Your task to perform on an android device: What's the news in Trinidad and Tobago? Image 0: 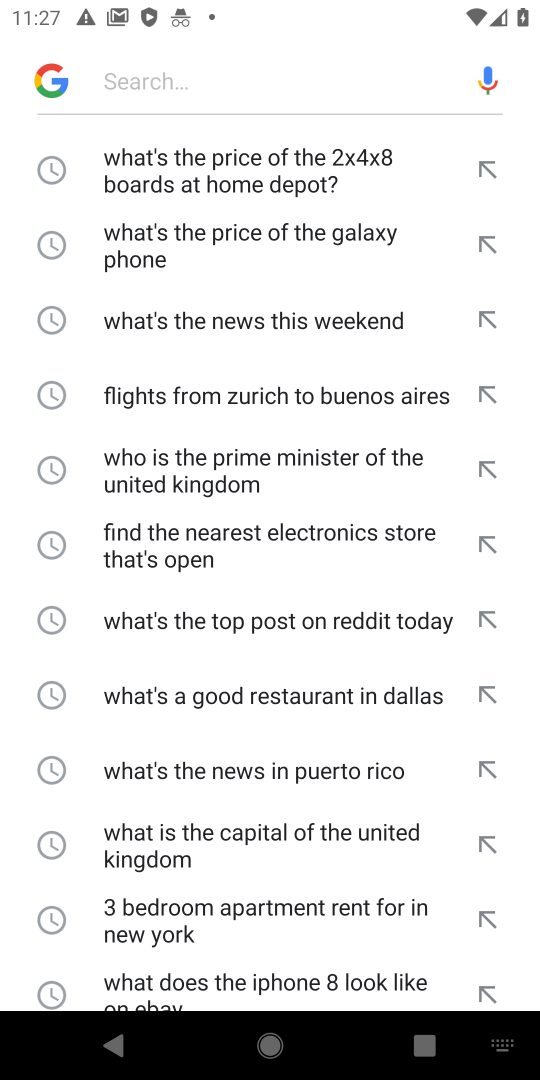
Step 0: press home button
Your task to perform on an android device: What's the news in Trinidad and Tobago? Image 1: 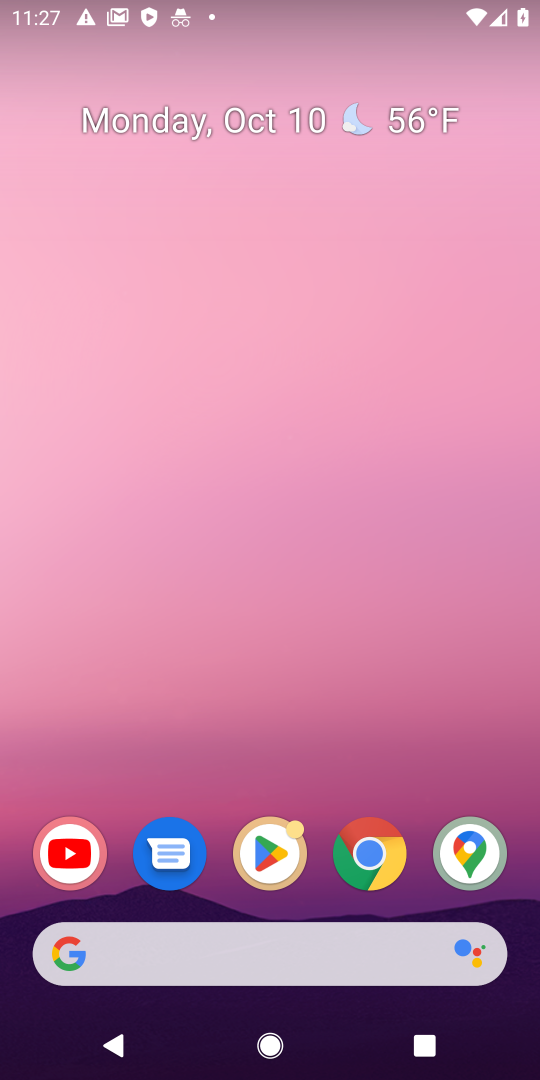
Step 1: click (219, 945)
Your task to perform on an android device: What's the news in Trinidad and Tobago? Image 2: 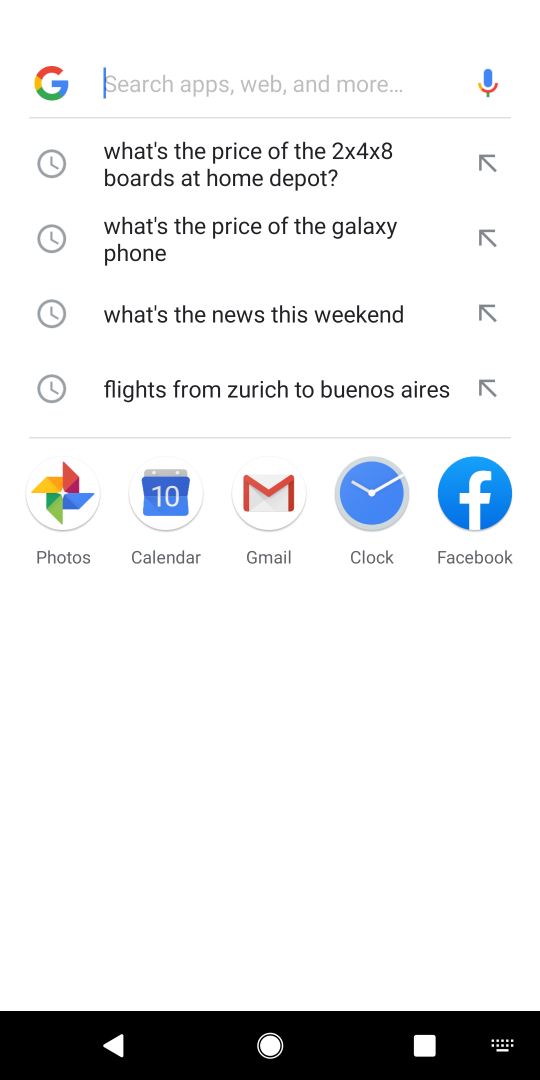
Step 2: type "What's the news in Trinidad and Tobago?"
Your task to perform on an android device: What's the news in Trinidad and Tobago? Image 3: 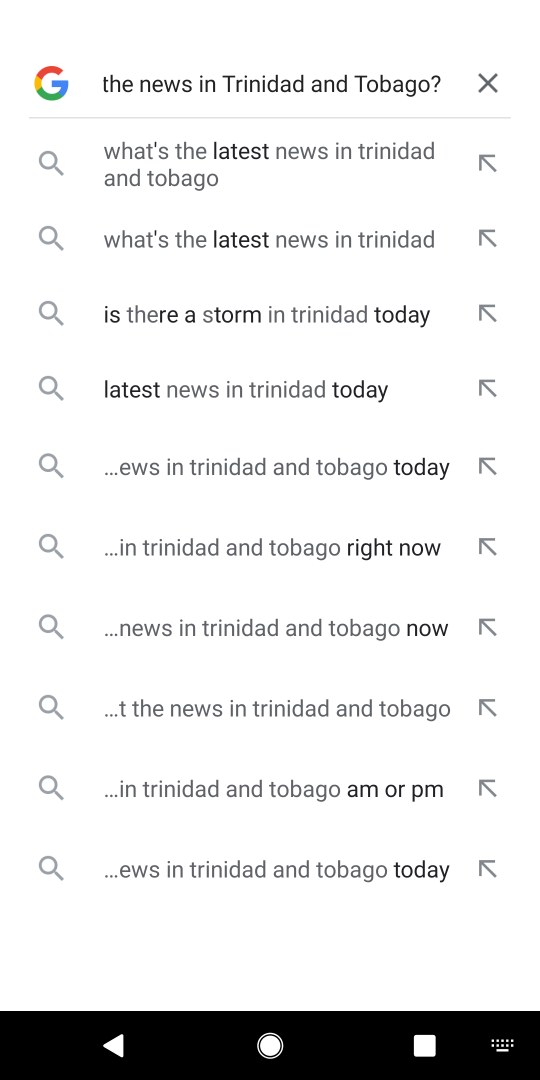
Step 3: press enter
Your task to perform on an android device: What's the news in Trinidad and Tobago? Image 4: 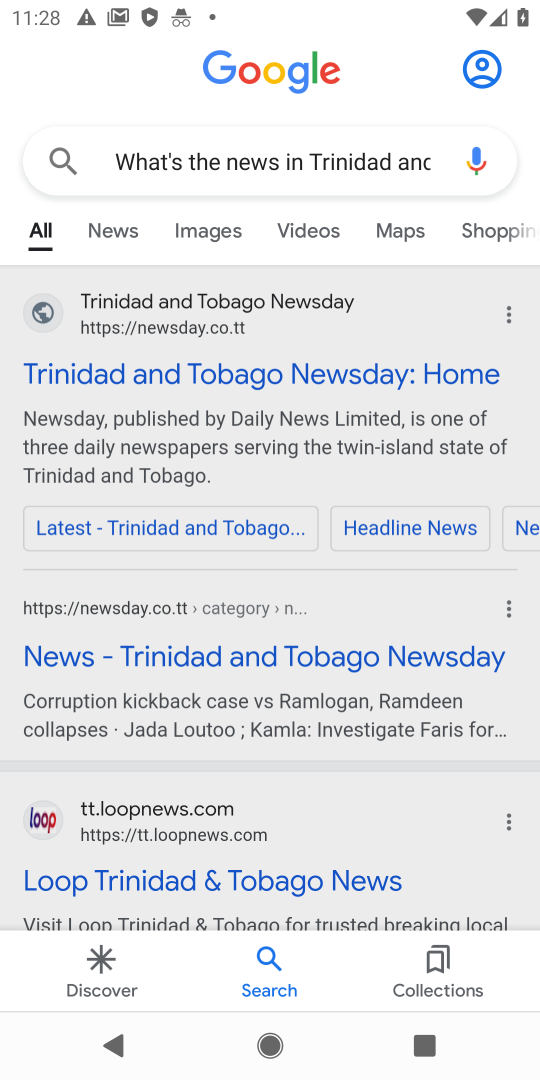
Step 4: click (374, 377)
Your task to perform on an android device: What's the news in Trinidad and Tobago? Image 5: 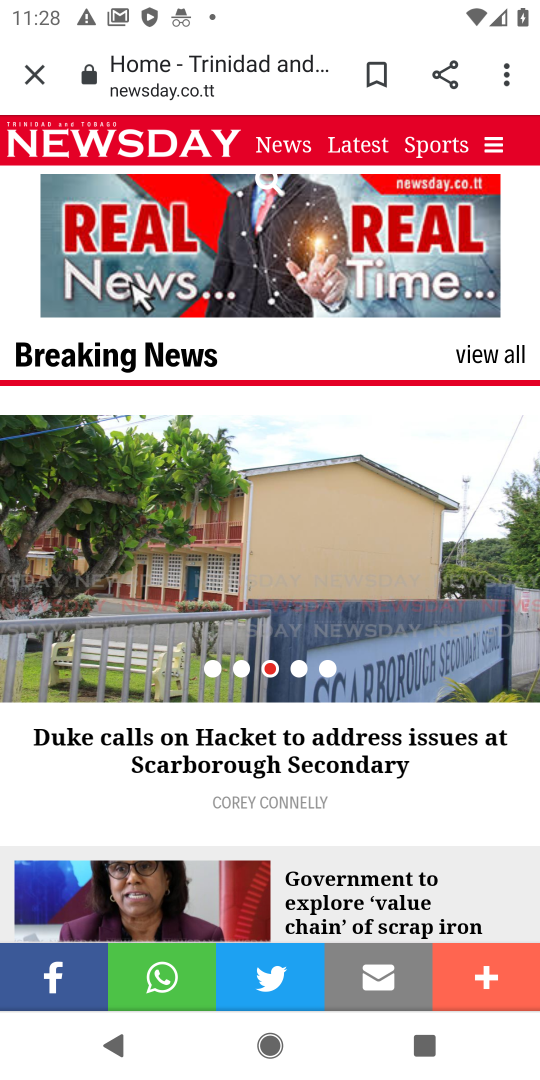
Step 5: task complete